Your task to perform on an android device: Open Google Maps Image 0: 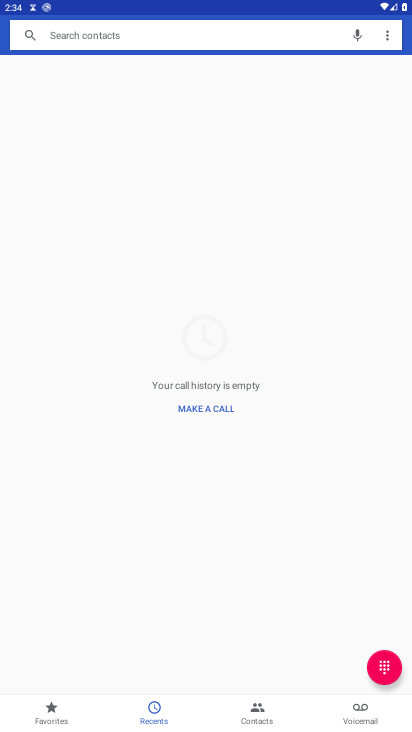
Step 0: press home button
Your task to perform on an android device: Open Google Maps Image 1: 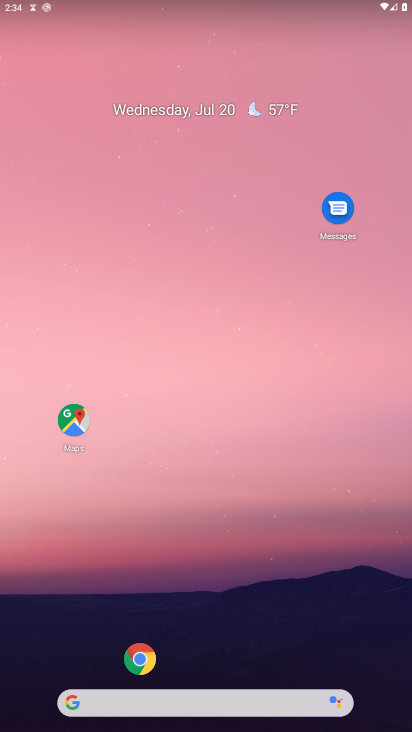
Step 1: drag from (65, 633) to (236, 235)
Your task to perform on an android device: Open Google Maps Image 2: 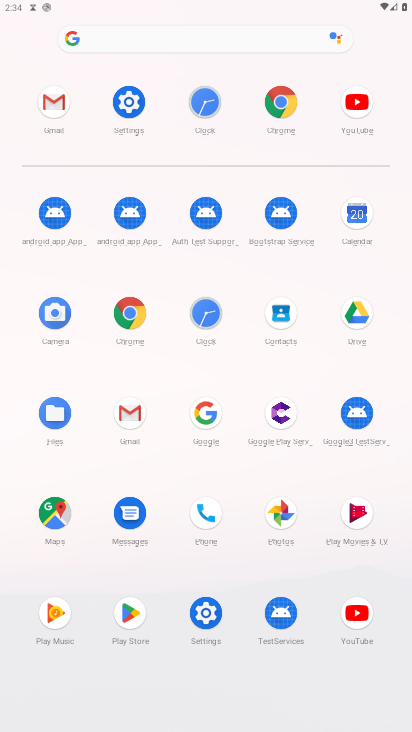
Step 2: click (46, 514)
Your task to perform on an android device: Open Google Maps Image 3: 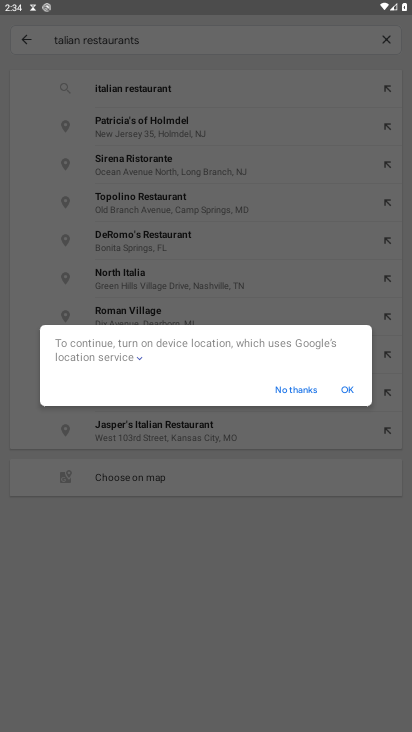
Step 3: click (34, 38)
Your task to perform on an android device: Open Google Maps Image 4: 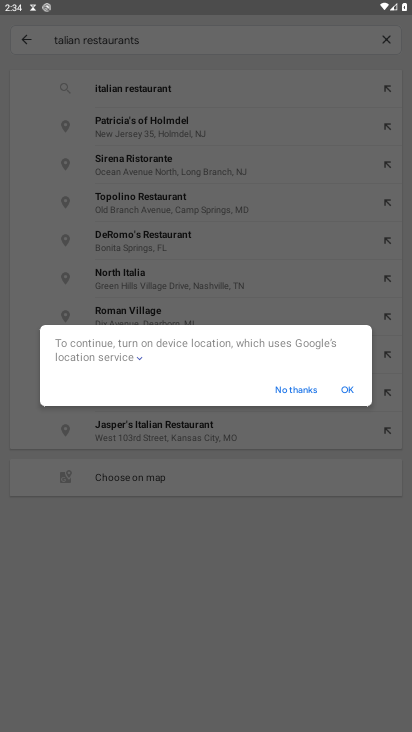
Step 4: click (334, 375)
Your task to perform on an android device: Open Google Maps Image 5: 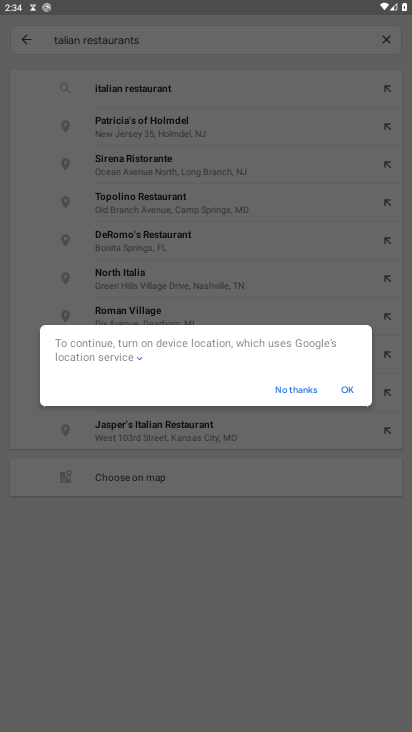
Step 5: click (353, 390)
Your task to perform on an android device: Open Google Maps Image 6: 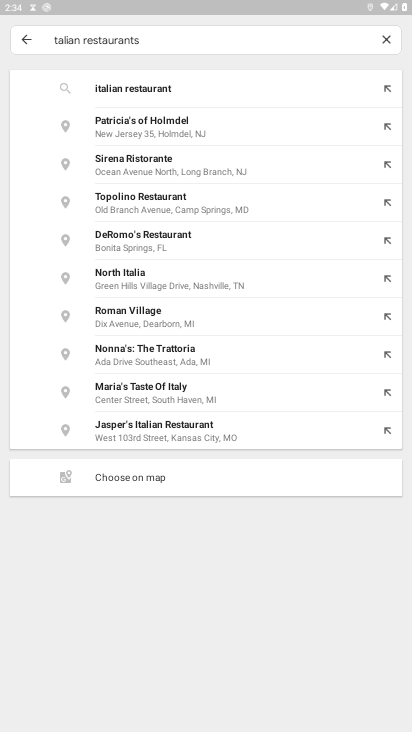
Step 6: click (26, 44)
Your task to perform on an android device: Open Google Maps Image 7: 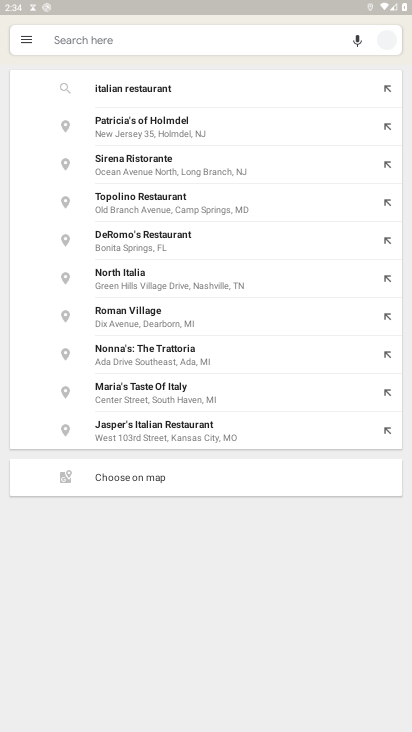
Step 7: click (30, 41)
Your task to perform on an android device: Open Google Maps Image 8: 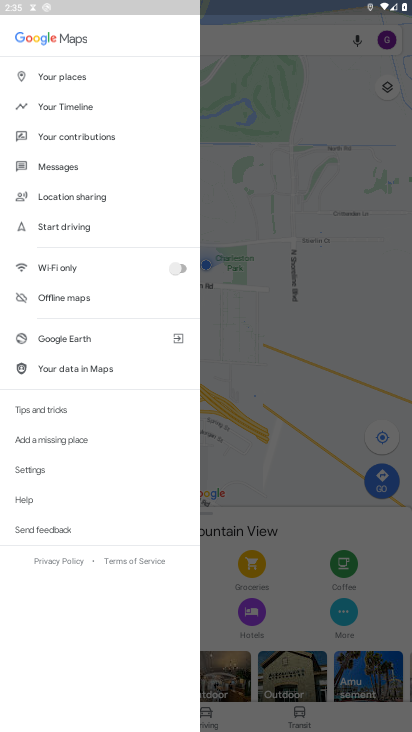
Step 8: click (284, 89)
Your task to perform on an android device: Open Google Maps Image 9: 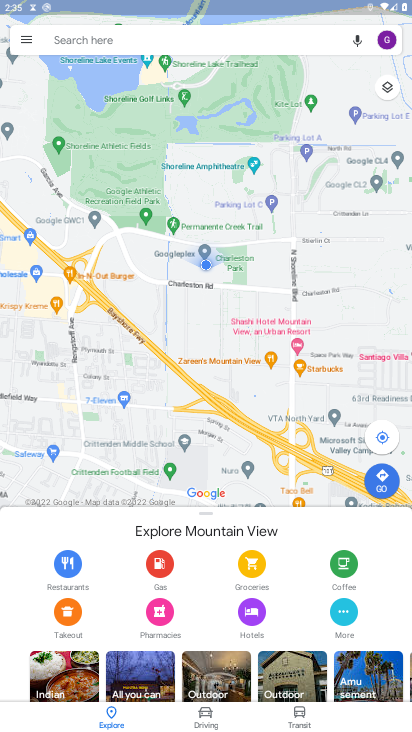
Step 9: task complete